Your task to perform on an android device: turn on translation in the chrome app Image 0: 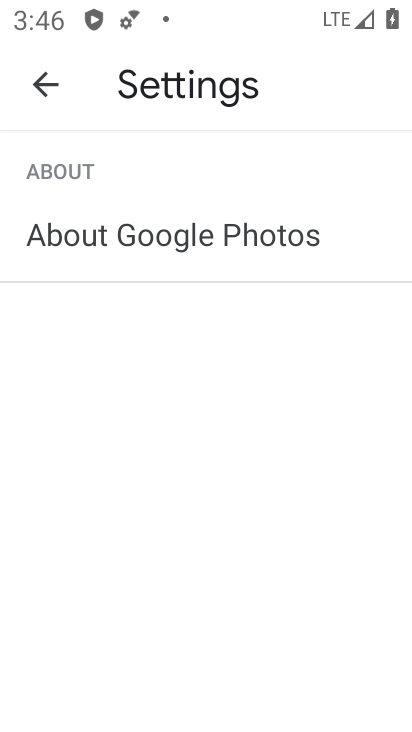
Step 0: press home button
Your task to perform on an android device: turn on translation in the chrome app Image 1: 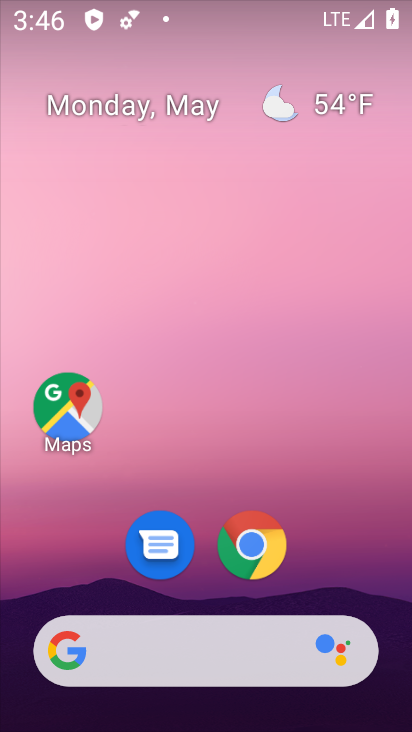
Step 1: click (247, 543)
Your task to perform on an android device: turn on translation in the chrome app Image 2: 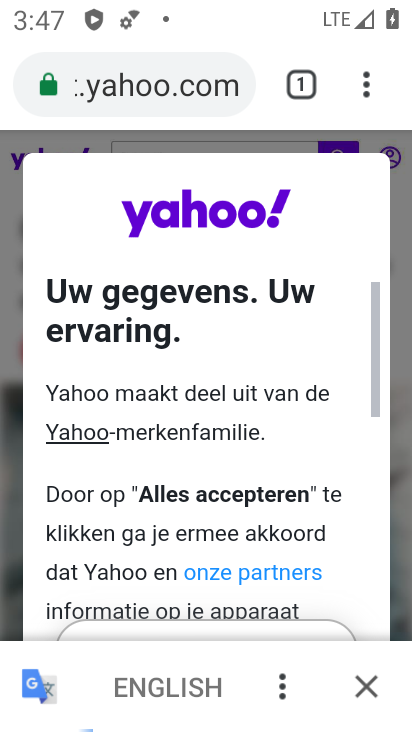
Step 2: click (363, 87)
Your task to perform on an android device: turn on translation in the chrome app Image 3: 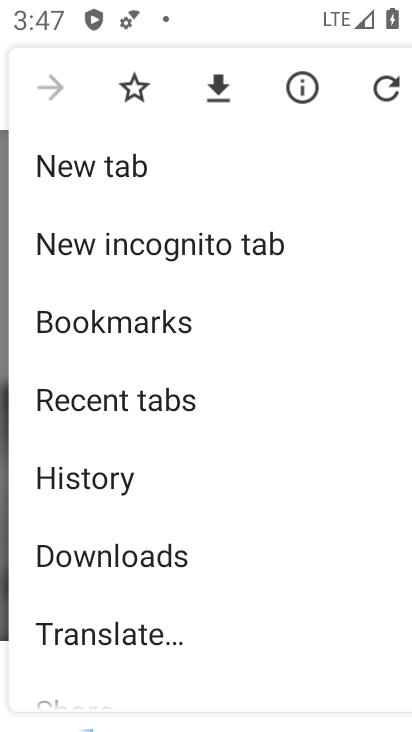
Step 3: drag from (239, 602) to (266, 255)
Your task to perform on an android device: turn on translation in the chrome app Image 4: 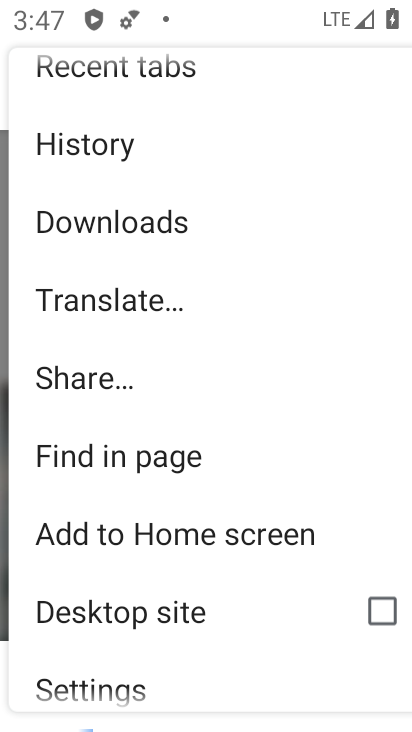
Step 4: drag from (206, 673) to (256, 399)
Your task to perform on an android device: turn on translation in the chrome app Image 5: 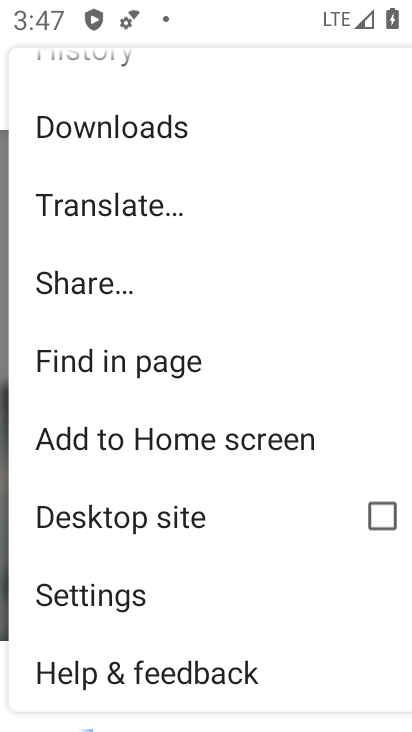
Step 5: click (132, 589)
Your task to perform on an android device: turn on translation in the chrome app Image 6: 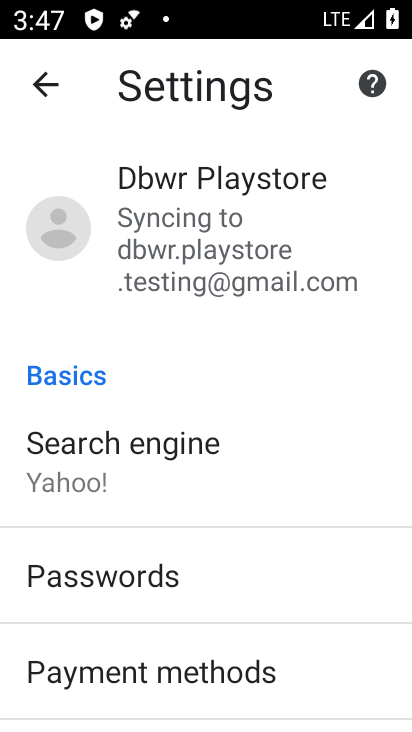
Step 6: drag from (276, 610) to (207, 239)
Your task to perform on an android device: turn on translation in the chrome app Image 7: 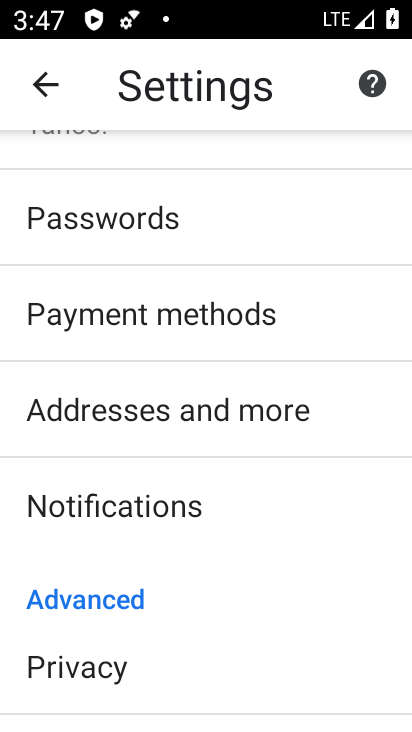
Step 7: drag from (253, 676) to (261, 275)
Your task to perform on an android device: turn on translation in the chrome app Image 8: 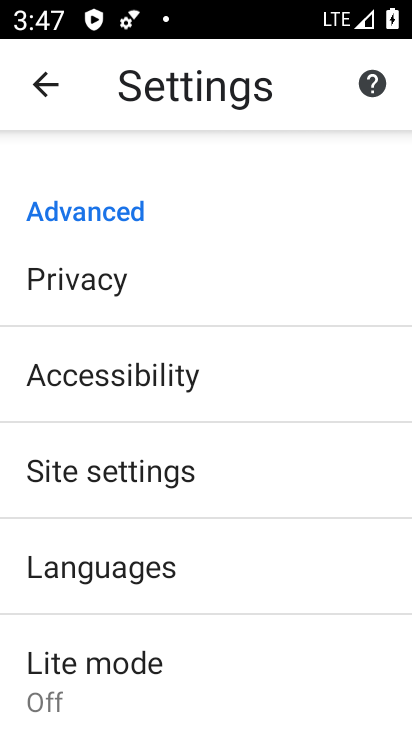
Step 8: click (92, 577)
Your task to perform on an android device: turn on translation in the chrome app Image 9: 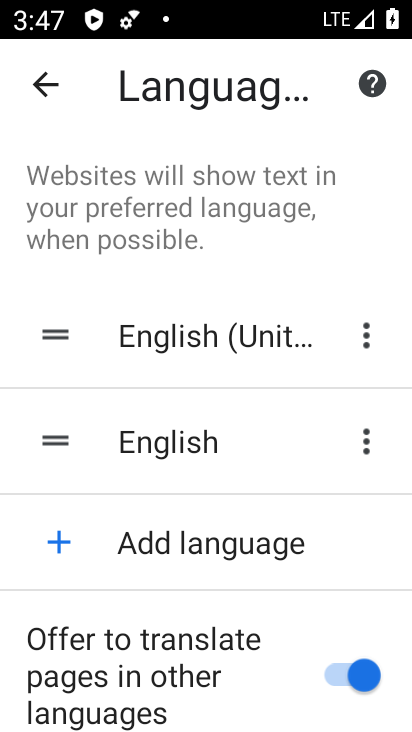
Step 9: task complete